Your task to perform on an android device: delete location history Image 0: 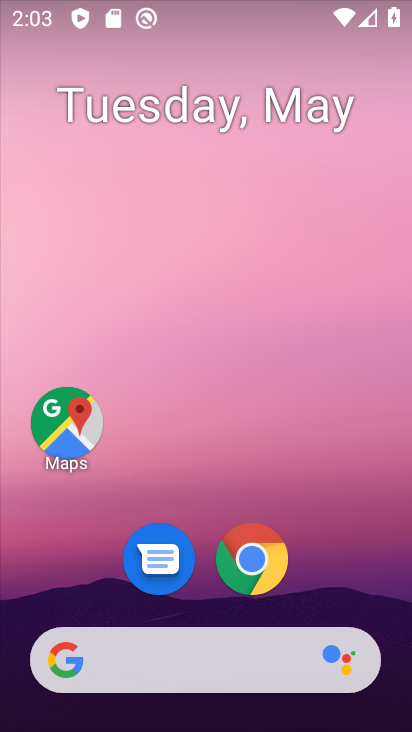
Step 0: drag from (206, 669) to (296, 158)
Your task to perform on an android device: delete location history Image 1: 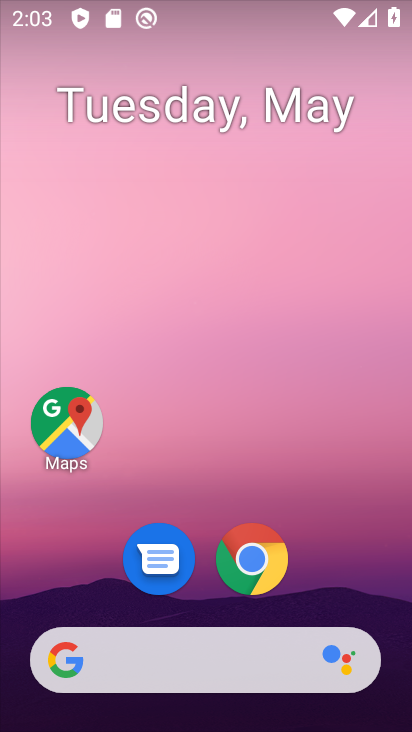
Step 1: click (61, 431)
Your task to perform on an android device: delete location history Image 2: 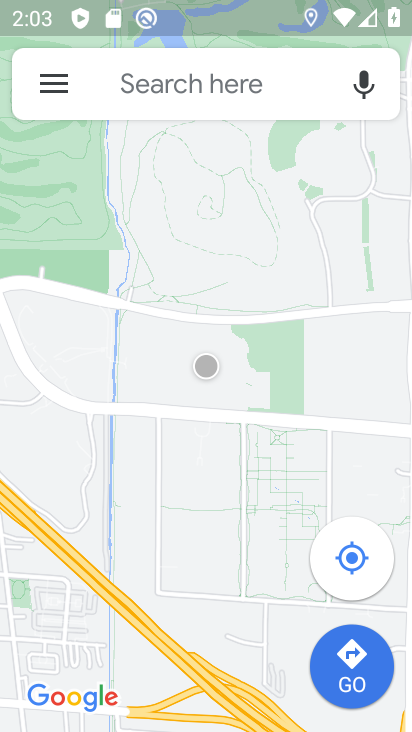
Step 2: click (57, 83)
Your task to perform on an android device: delete location history Image 3: 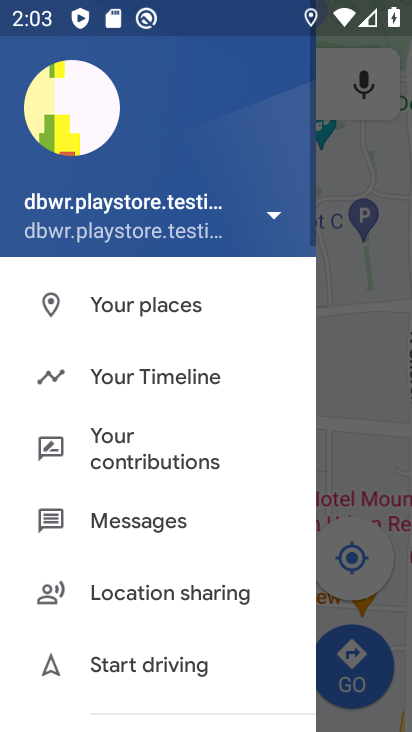
Step 3: drag from (162, 674) to (189, 519)
Your task to perform on an android device: delete location history Image 4: 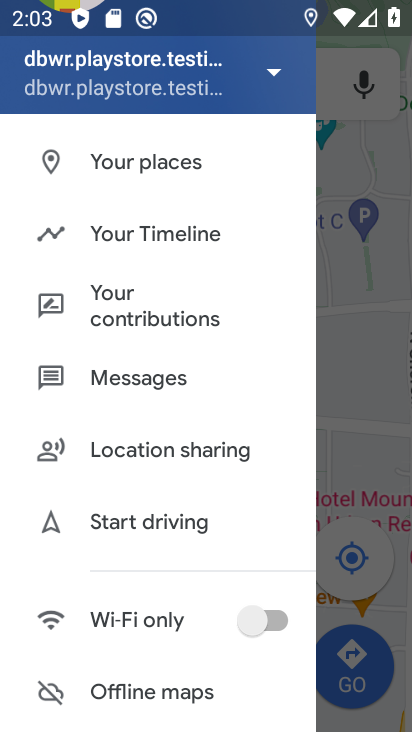
Step 4: click (162, 233)
Your task to perform on an android device: delete location history Image 5: 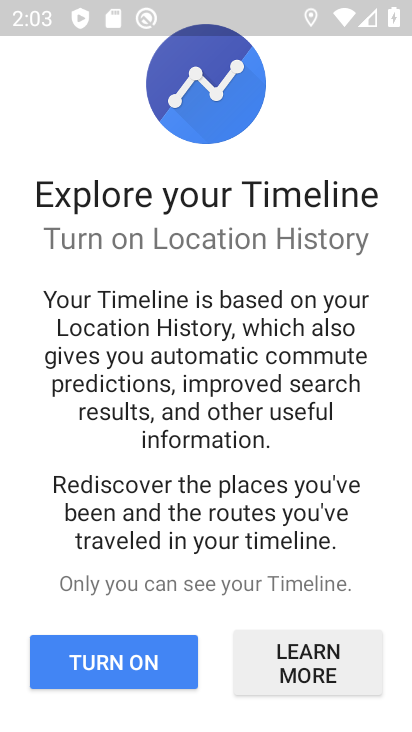
Step 5: drag from (189, 584) to (270, 323)
Your task to perform on an android device: delete location history Image 6: 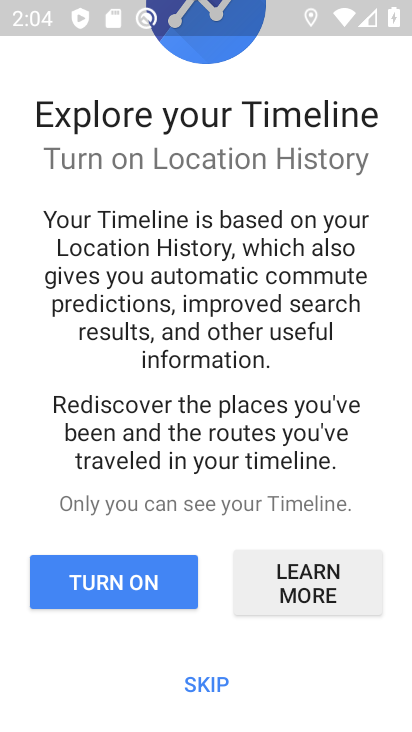
Step 6: click (206, 686)
Your task to perform on an android device: delete location history Image 7: 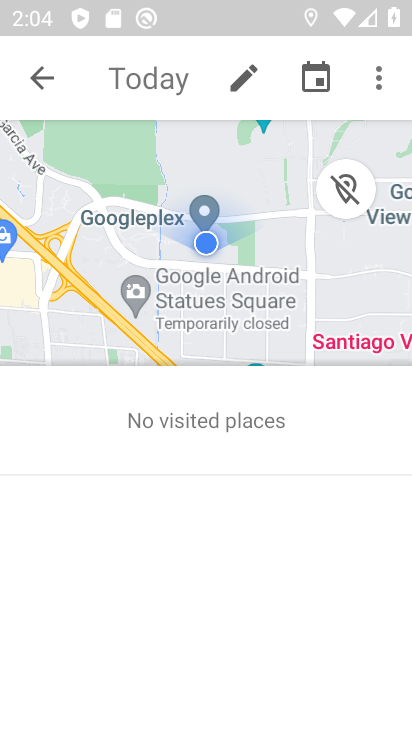
Step 7: click (378, 89)
Your task to perform on an android device: delete location history Image 8: 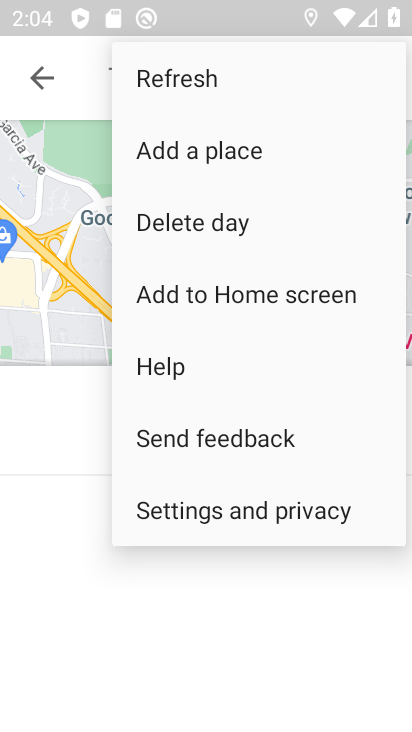
Step 8: click (235, 518)
Your task to perform on an android device: delete location history Image 9: 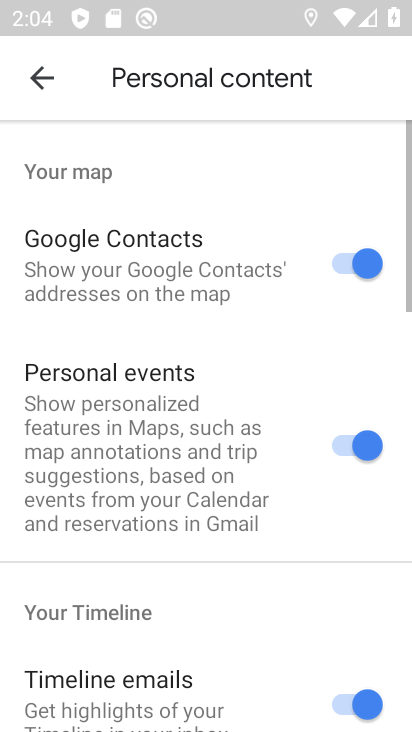
Step 9: drag from (219, 638) to (354, 113)
Your task to perform on an android device: delete location history Image 10: 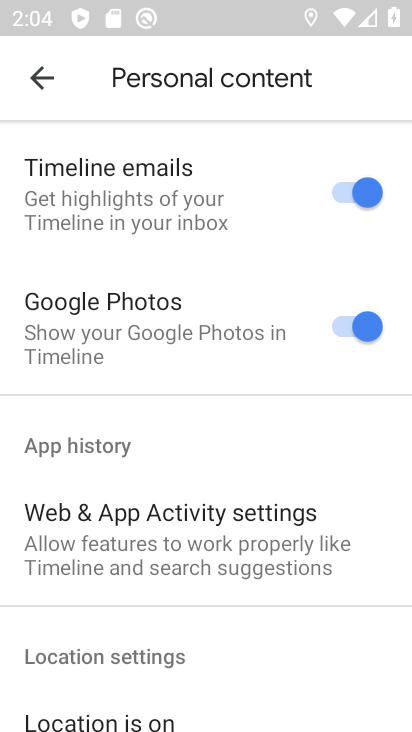
Step 10: drag from (187, 640) to (310, 172)
Your task to perform on an android device: delete location history Image 11: 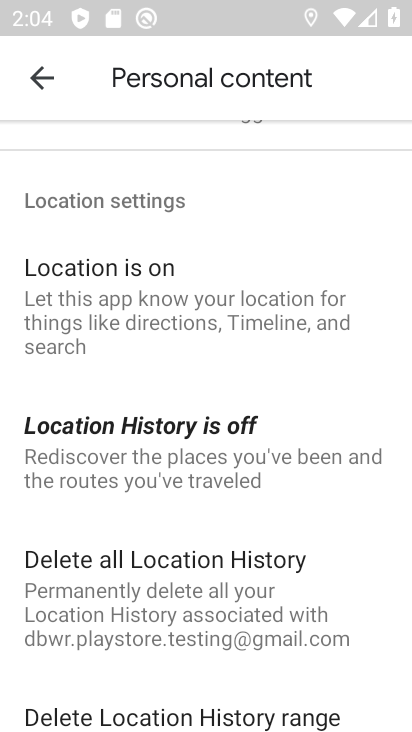
Step 11: click (178, 600)
Your task to perform on an android device: delete location history Image 12: 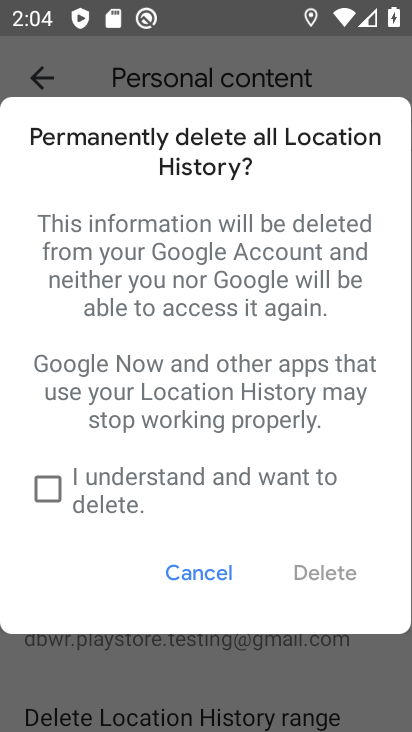
Step 12: click (42, 492)
Your task to perform on an android device: delete location history Image 13: 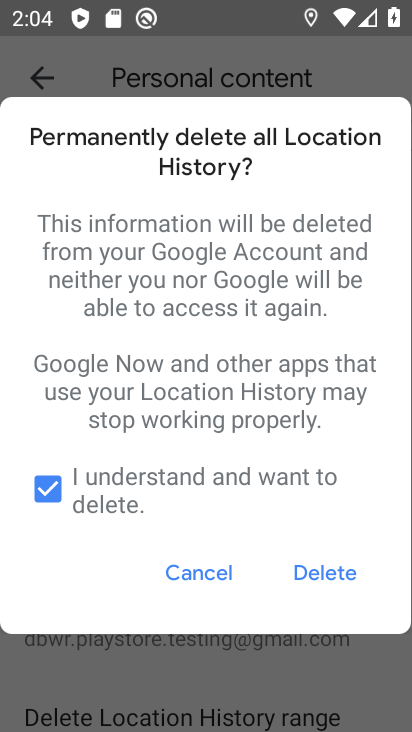
Step 13: click (336, 572)
Your task to perform on an android device: delete location history Image 14: 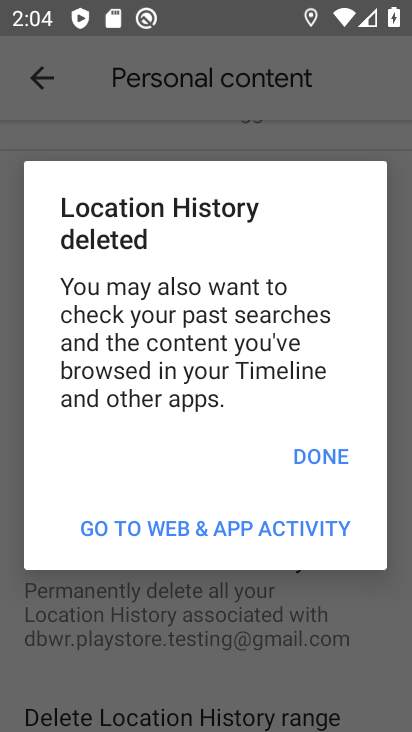
Step 14: click (334, 465)
Your task to perform on an android device: delete location history Image 15: 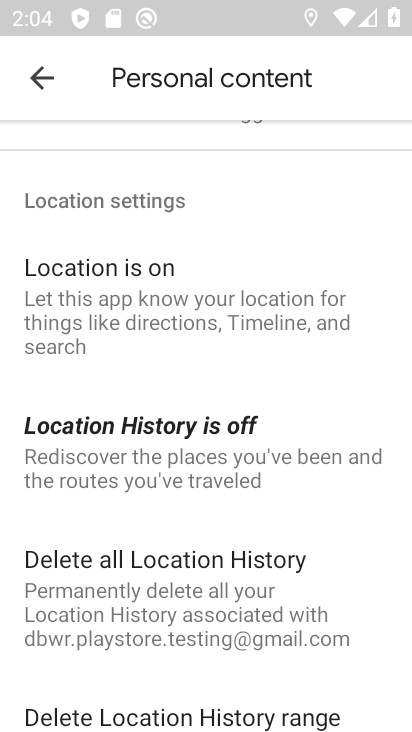
Step 15: task complete